Your task to perform on an android device: star an email in the gmail app Image 0: 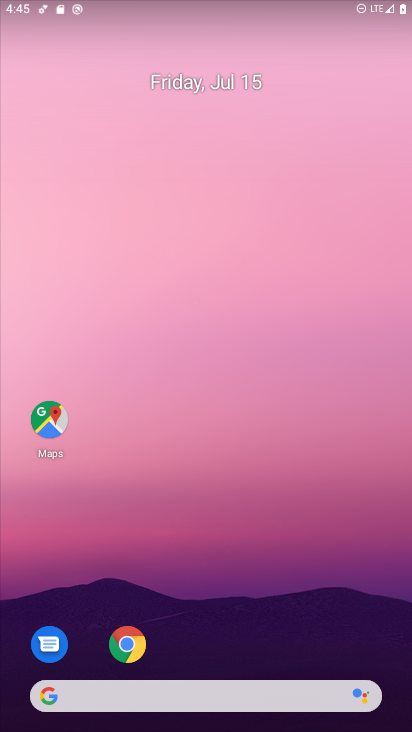
Step 0: drag from (217, 667) to (228, 55)
Your task to perform on an android device: star an email in the gmail app Image 1: 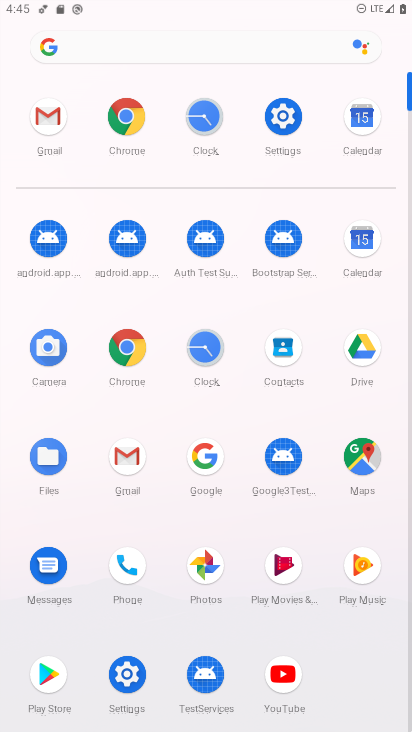
Step 1: click (118, 463)
Your task to perform on an android device: star an email in the gmail app Image 2: 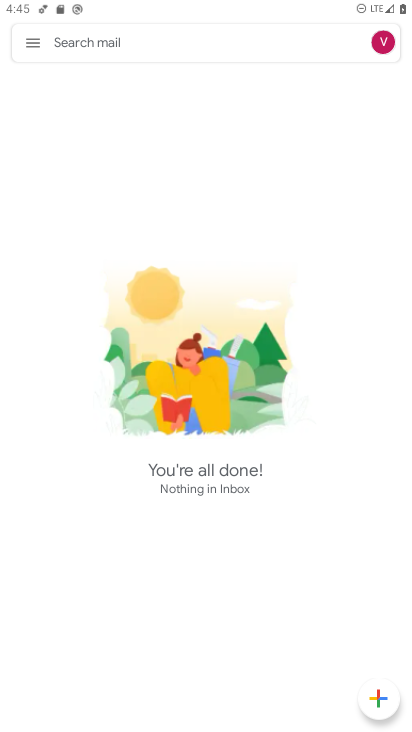
Step 2: click (212, 51)
Your task to perform on an android device: star an email in the gmail app Image 3: 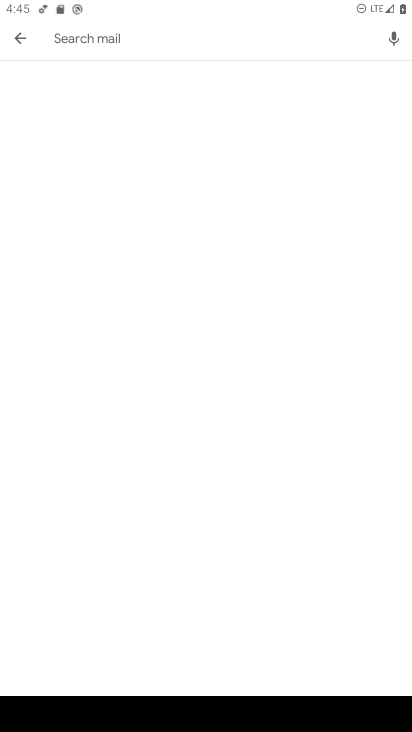
Step 3: task complete